Your task to perform on an android device: see creations saved in the google photos Image 0: 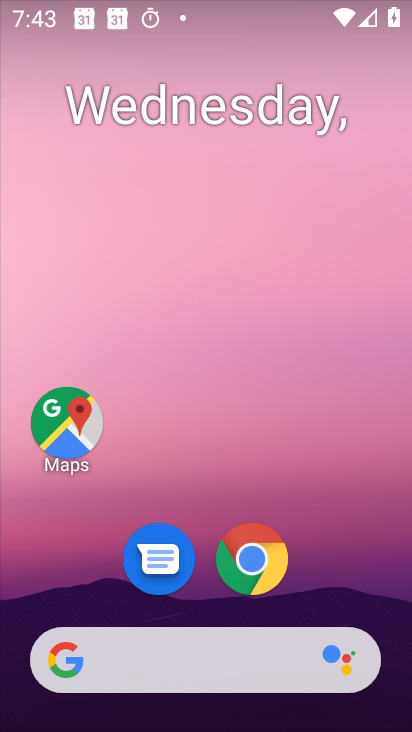
Step 0: click (282, 488)
Your task to perform on an android device: see creations saved in the google photos Image 1: 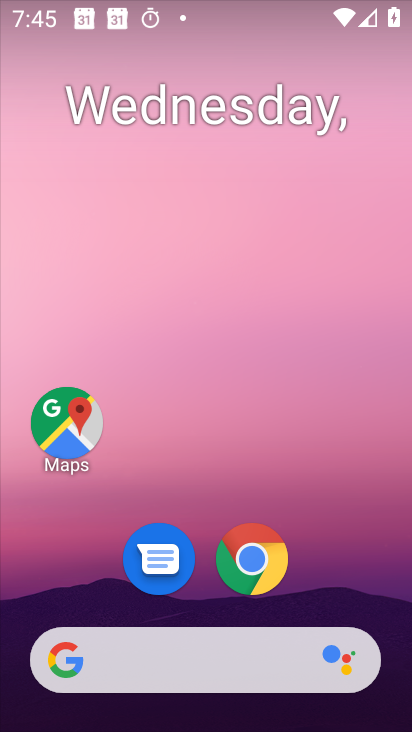
Step 1: drag from (346, 581) to (320, 16)
Your task to perform on an android device: see creations saved in the google photos Image 2: 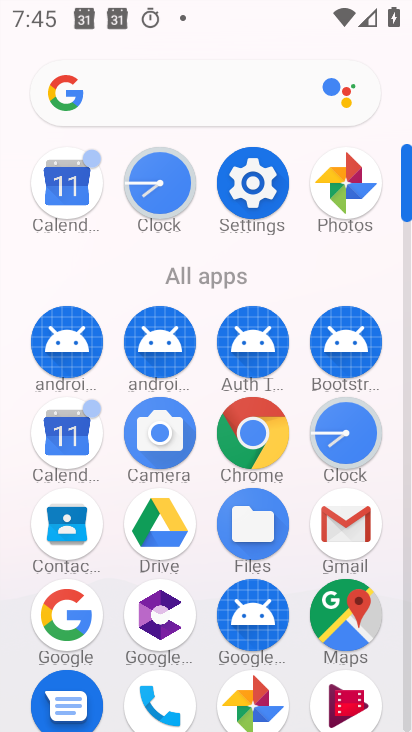
Step 2: click (329, 189)
Your task to perform on an android device: see creations saved in the google photos Image 3: 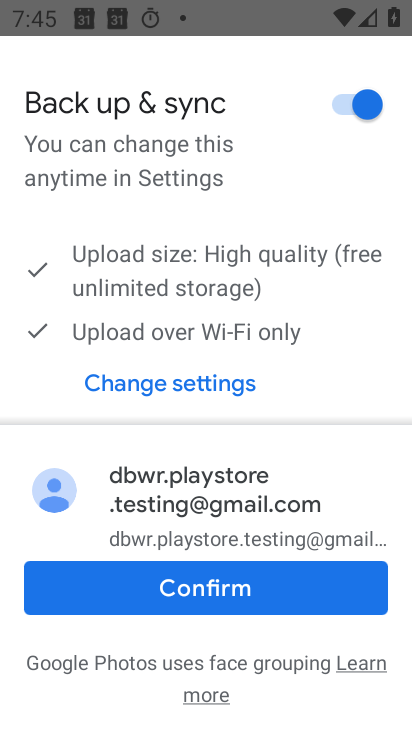
Step 3: click (233, 583)
Your task to perform on an android device: see creations saved in the google photos Image 4: 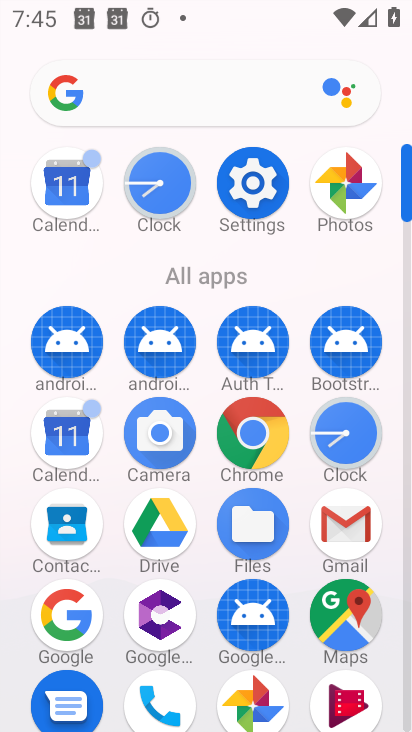
Step 4: click (341, 203)
Your task to perform on an android device: see creations saved in the google photos Image 5: 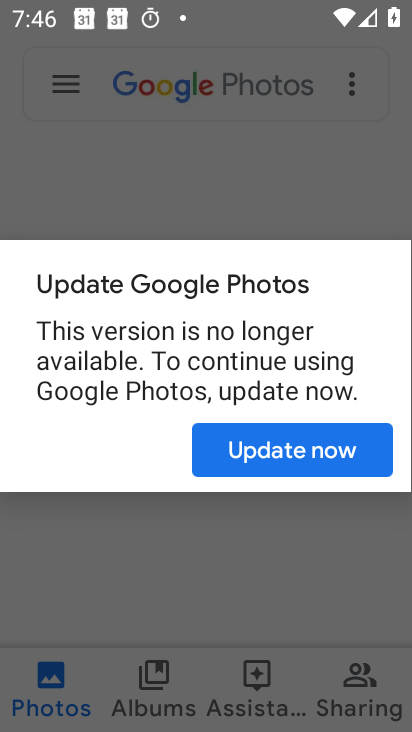
Step 5: click (322, 459)
Your task to perform on an android device: see creations saved in the google photos Image 6: 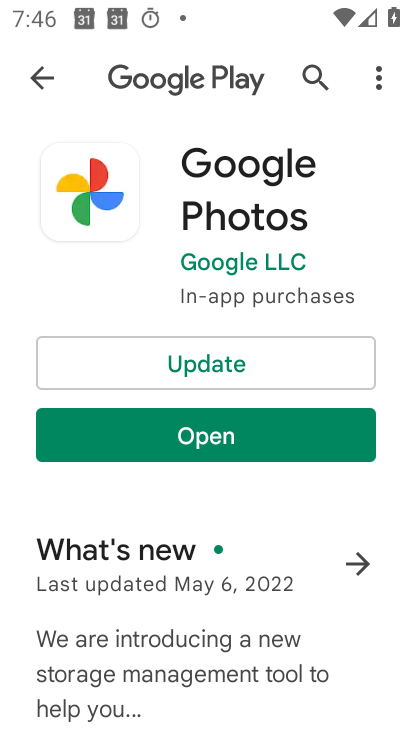
Step 6: click (214, 440)
Your task to perform on an android device: see creations saved in the google photos Image 7: 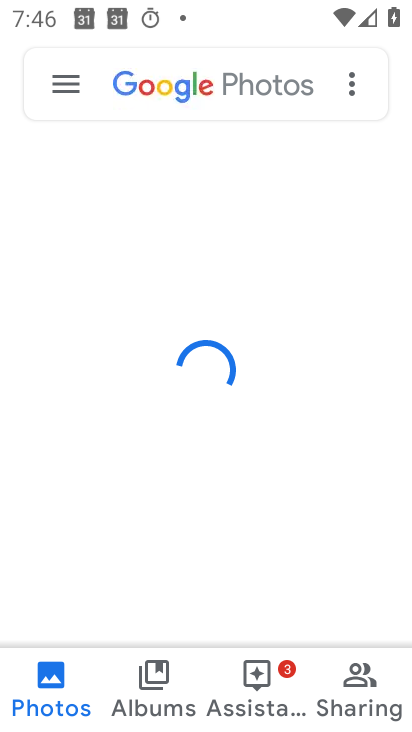
Step 7: click (131, 85)
Your task to perform on an android device: see creations saved in the google photos Image 8: 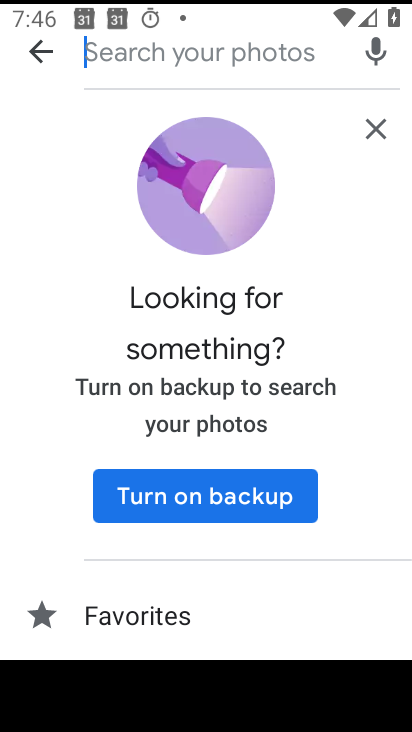
Step 8: drag from (206, 524) to (199, 115)
Your task to perform on an android device: see creations saved in the google photos Image 9: 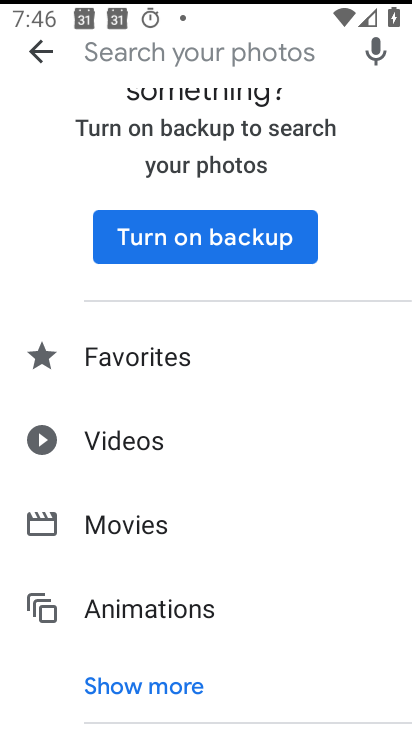
Step 9: click (122, 686)
Your task to perform on an android device: see creations saved in the google photos Image 10: 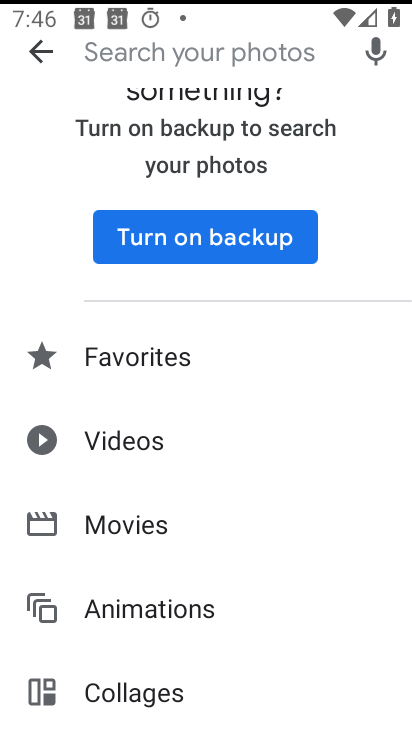
Step 10: drag from (253, 664) to (224, 151)
Your task to perform on an android device: see creations saved in the google photos Image 11: 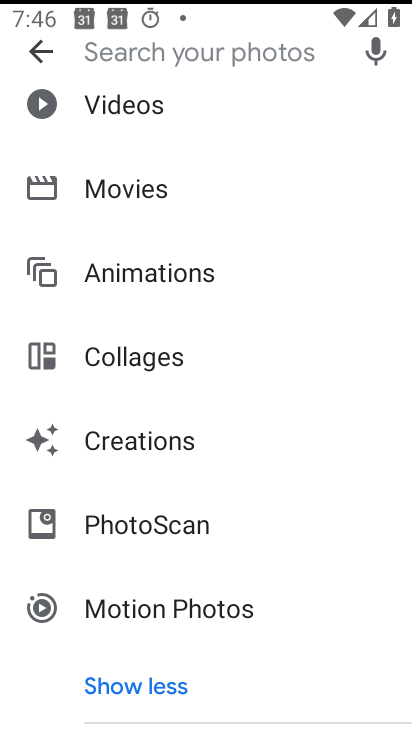
Step 11: click (140, 452)
Your task to perform on an android device: see creations saved in the google photos Image 12: 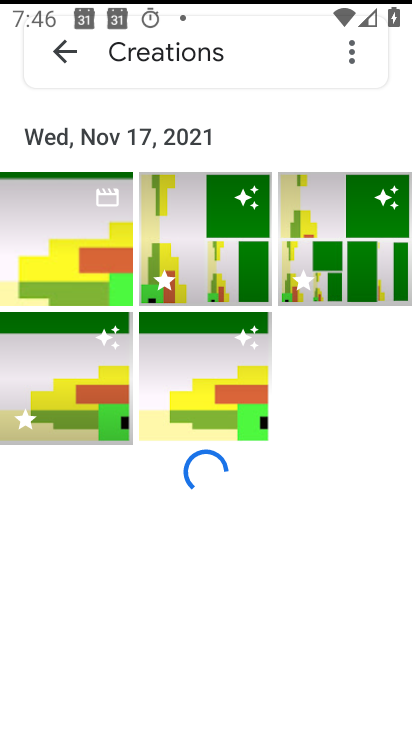
Step 12: task complete